Your task to perform on an android device: Go to Amazon Image 0: 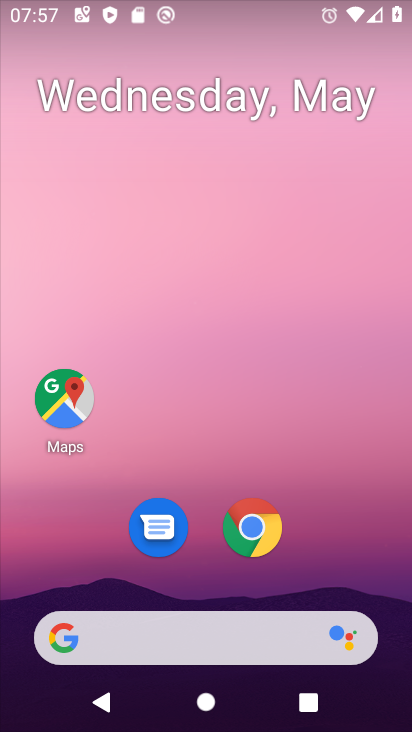
Step 0: click (245, 534)
Your task to perform on an android device: Go to Amazon Image 1: 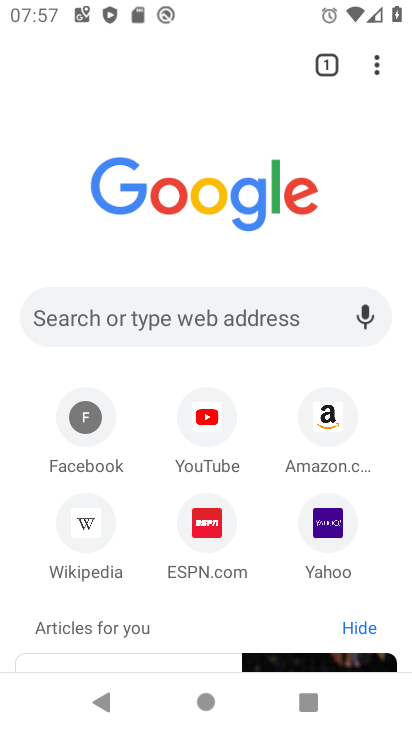
Step 1: click (333, 419)
Your task to perform on an android device: Go to Amazon Image 2: 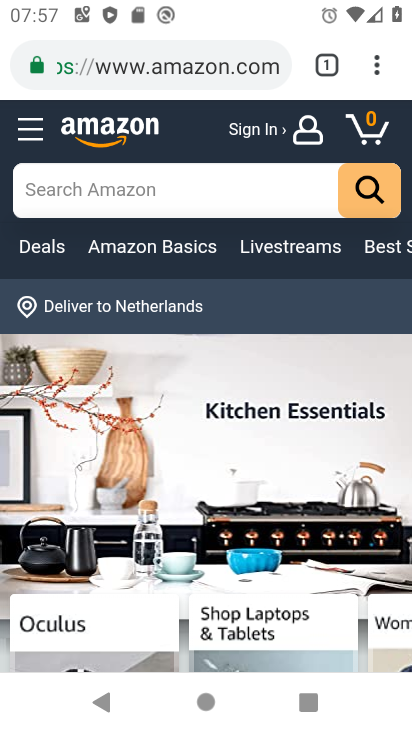
Step 2: task complete